Your task to perform on an android device: turn off data saver in the chrome app Image 0: 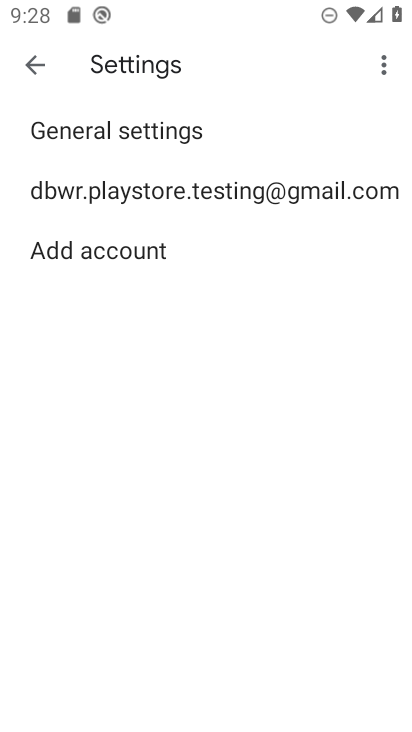
Step 0: press home button
Your task to perform on an android device: turn off data saver in the chrome app Image 1: 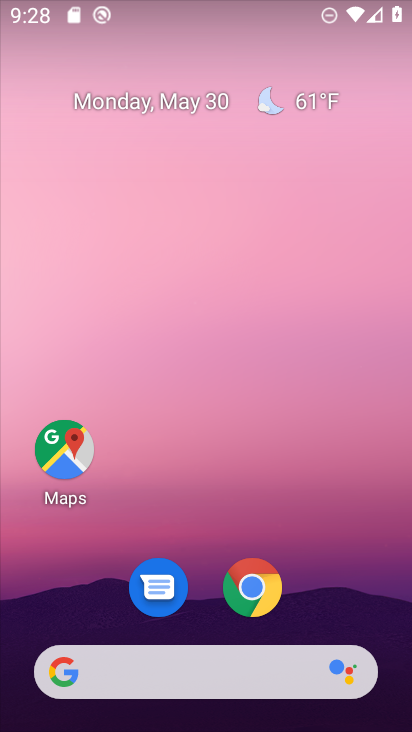
Step 1: click (250, 600)
Your task to perform on an android device: turn off data saver in the chrome app Image 2: 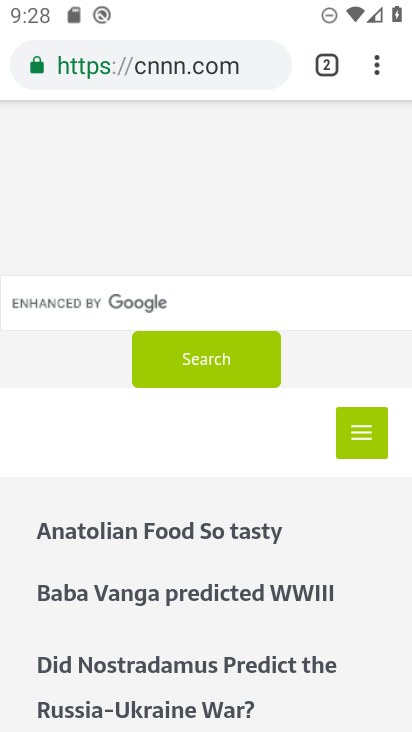
Step 2: click (374, 65)
Your task to perform on an android device: turn off data saver in the chrome app Image 3: 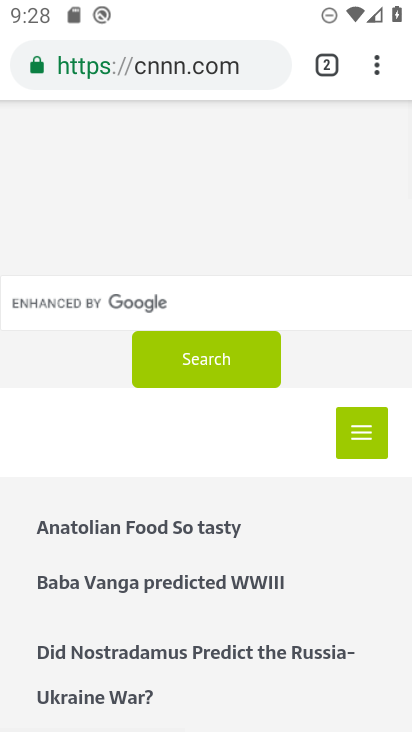
Step 3: drag from (380, 69) to (139, 643)
Your task to perform on an android device: turn off data saver in the chrome app Image 4: 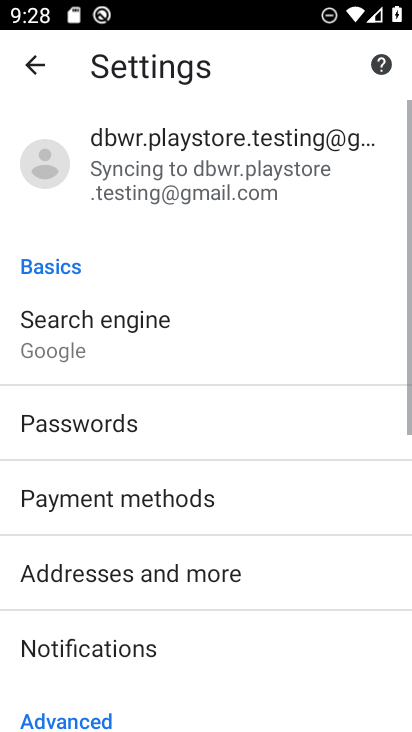
Step 4: drag from (138, 643) to (89, 6)
Your task to perform on an android device: turn off data saver in the chrome app Image 5: 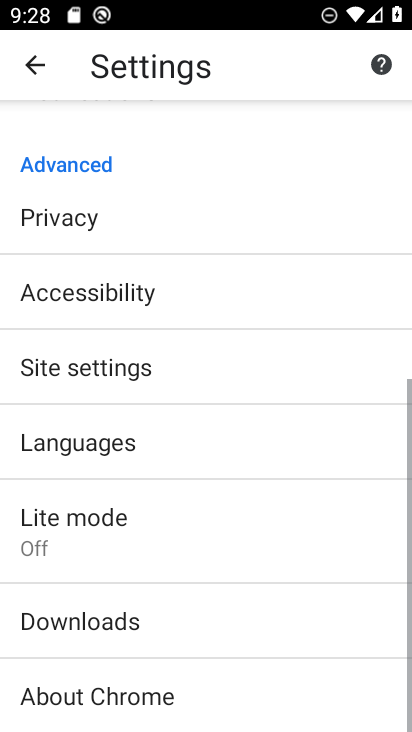
Step 5: click (100, 525)
Your task to perform on an android device: turn off data saver in the chrome app Image 6: 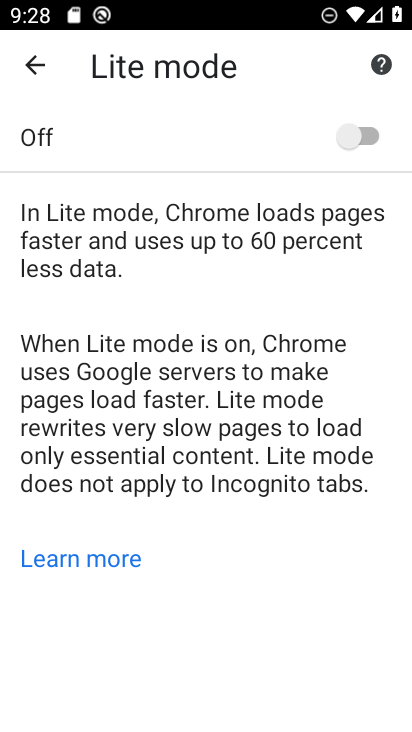
Step 6: task complete